Your task to perform on an android device: When is my next meeting? Image 0: 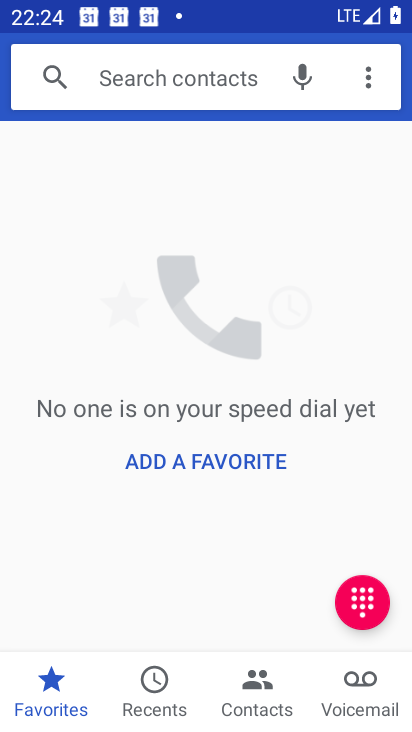
Step 0: press home button
Your task to perform on an android device: When is my next meeting? Image 1: 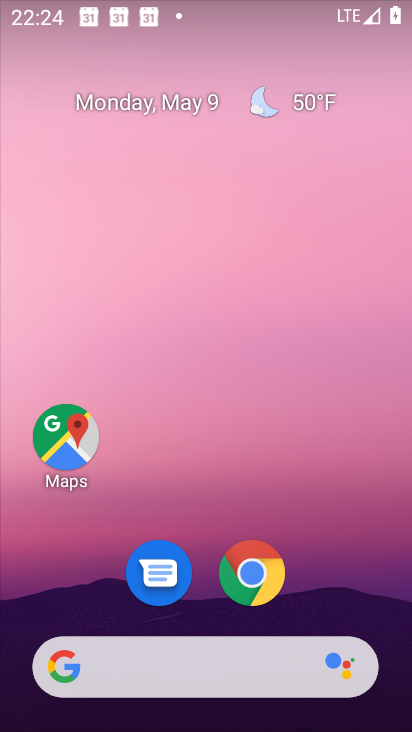
Step 1: drag from (338, 577) to (362, 154)
Your task to perform on an android device: When is my next meeting? Image 2: 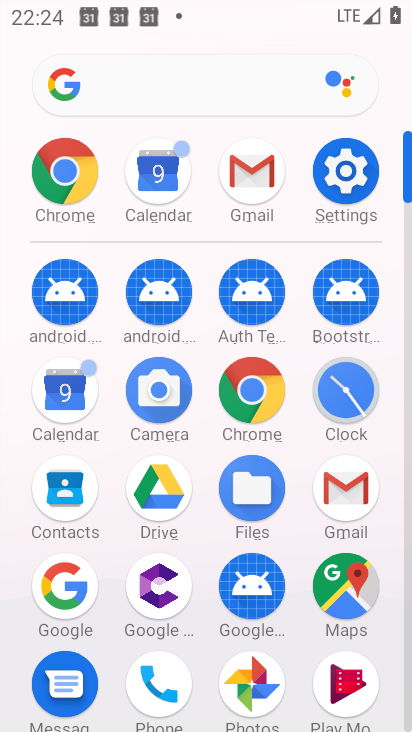
Step 2: click (65, 386)
Your task to perform on an android device: When is my next meeting? Image 3: 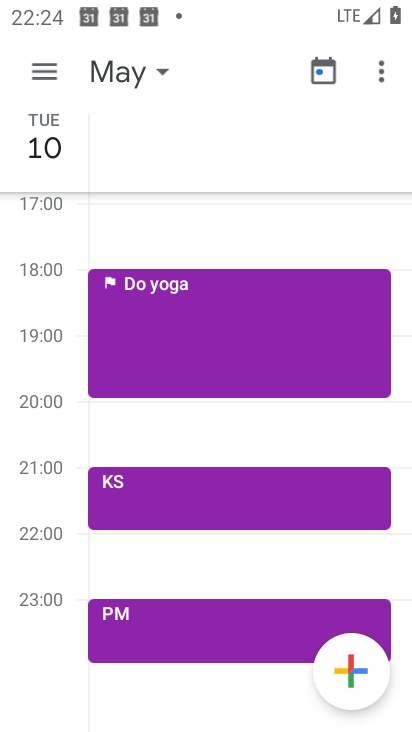
Step 3: task complete